Your task to perform on an android device: Open settings on Google Maps Image 0: 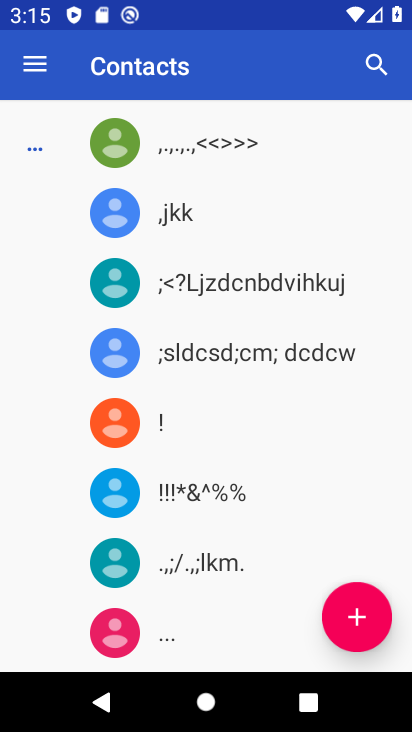
Step 0: press home button
Your task to perform on an android device: Open settings on Google Maps Image 1: 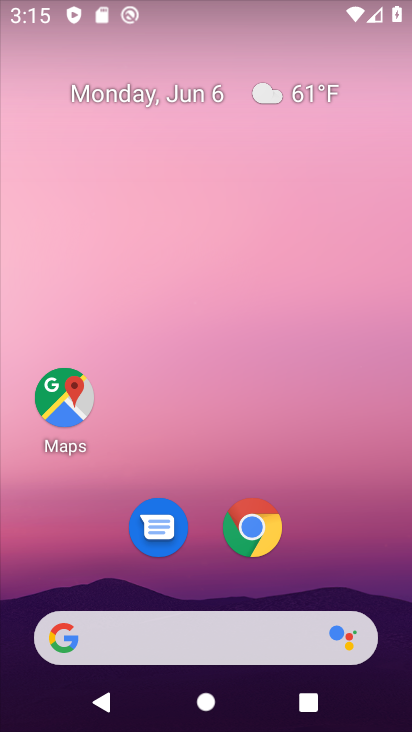
Step 1: click (62, 399)
Your task to perform on an android device: Open settings on Google Maps Image 2: 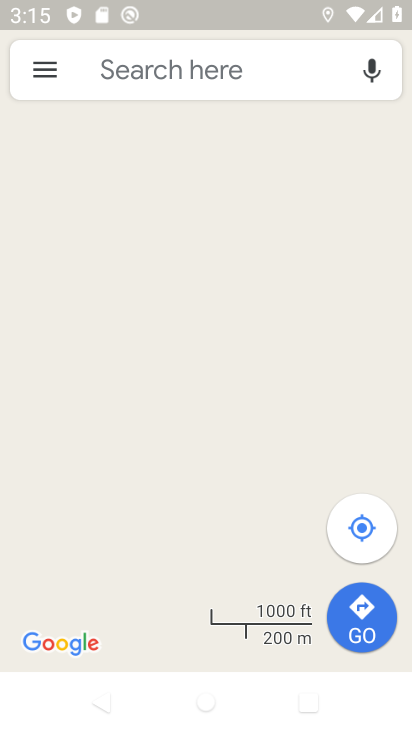
Step 2: click (47, 69)
Your task to perform on an android device: Open settings on Google Maps Image 3: 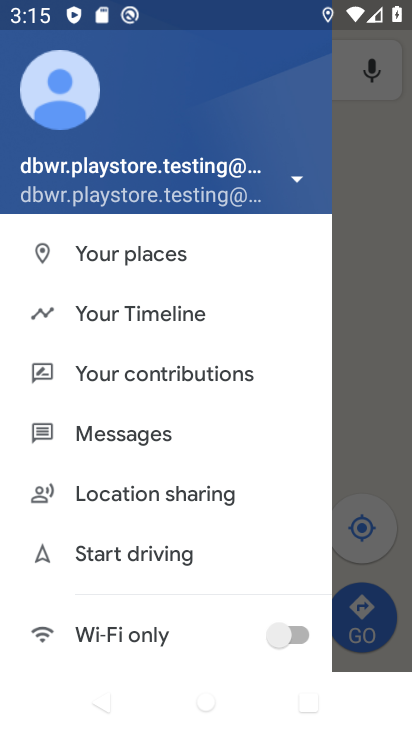
Step 3: drag from (149, 576) to (134, 310)
Your task to perform on an android device: Open settings on Google Maps Image 4: 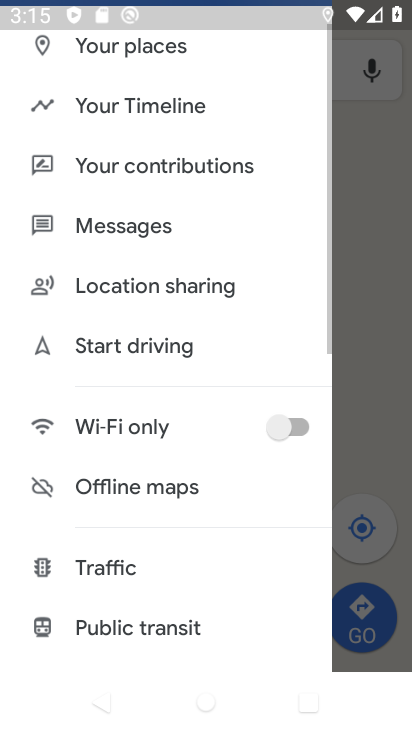
Step 4: drag from (148, 595) to (176, 398)
Your task to perform on an android device: Open settings on Google Maps Image 5: 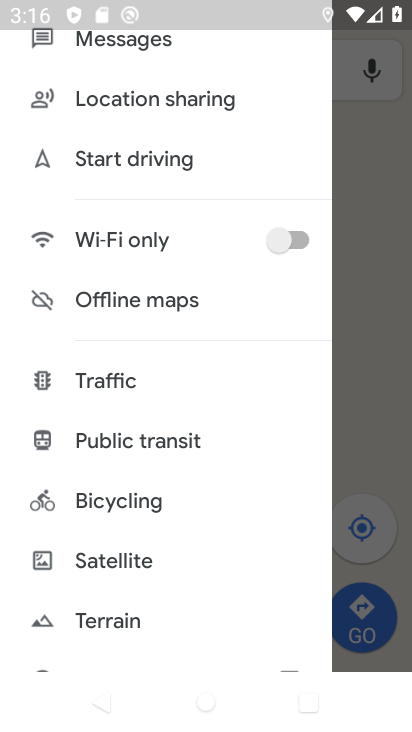
Step 5: drag from (151, 597) to (208, 438)
Your task to perform on an android device: Open settings on Google Maps Image 6: 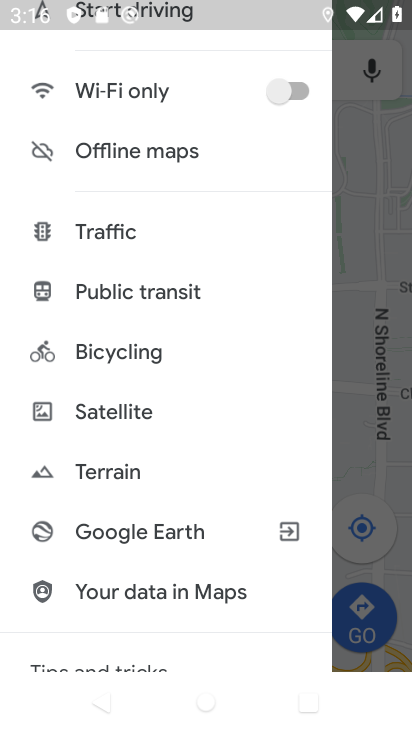
Step 6: drag from (134, 618) to (170, 388)
Your task to perform on an android device: Open settings on Google Maps Image 7: 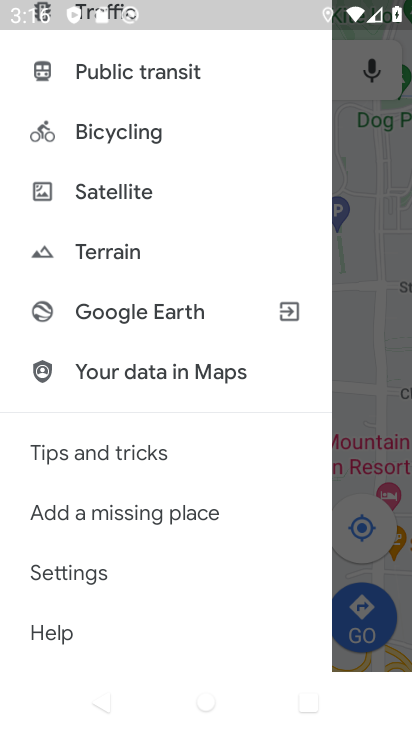
Step 7: click (106, 580)
Your task to perform on an android device: Open settings on Google Maps Image 8: 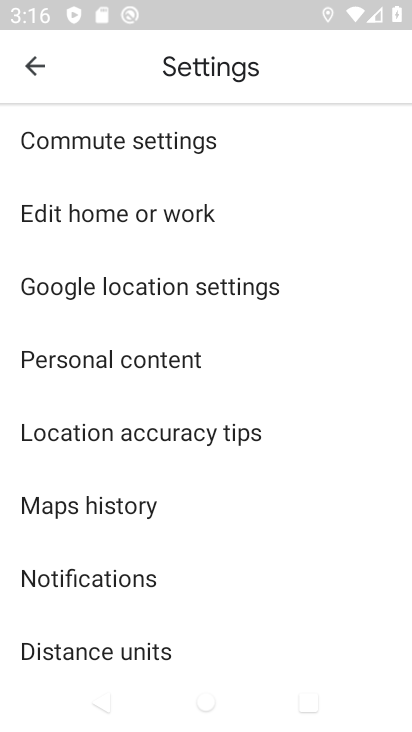
Step 8: task complete